Your task to perform on an android device: remove spam from my inbox in the gmail app Image 0: 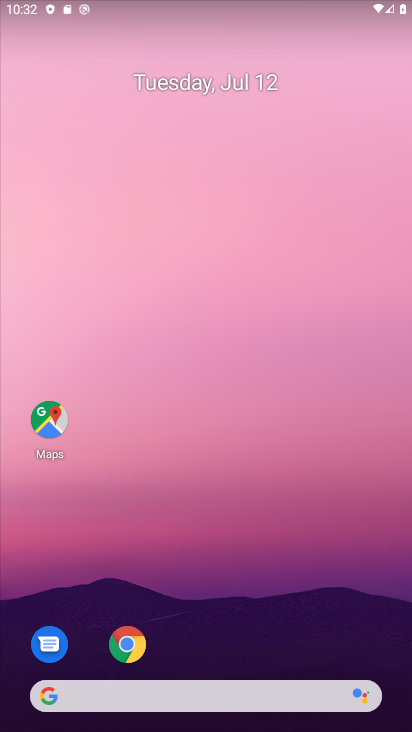
Step 0: press home button
Your task to perform on an android device: remove spam from my inbox in the gmail app Image 1: 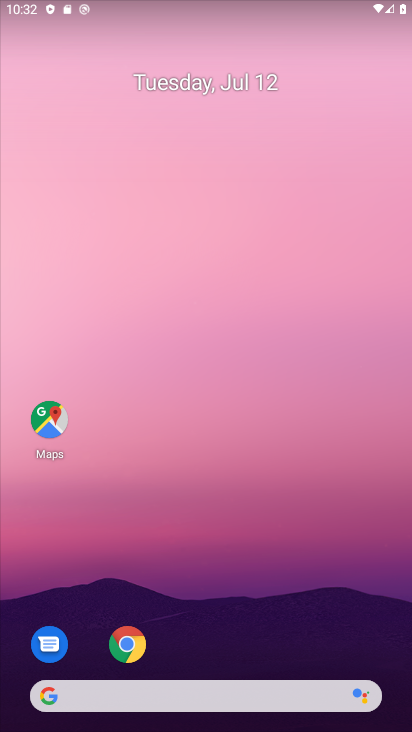
Step 1: drag from (206, 644) to (289, 25)
Your task to perform on an android device: remove spam from my inbox in the gmail app Image 2: 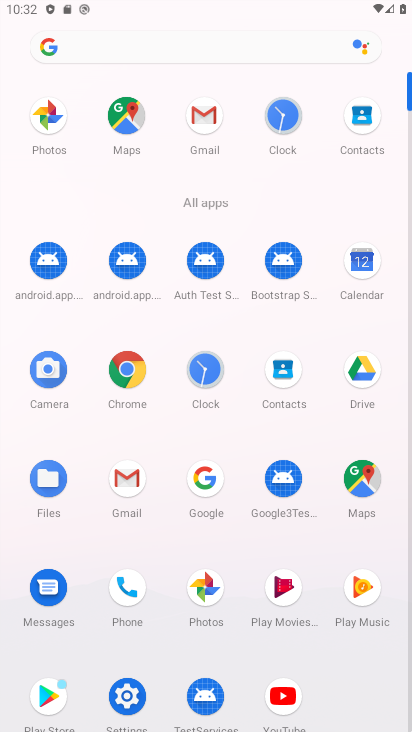
Step 2: click (204, 113)
Your task to perform on an android device: remove spam from my inbox in the gmail app Image 3: 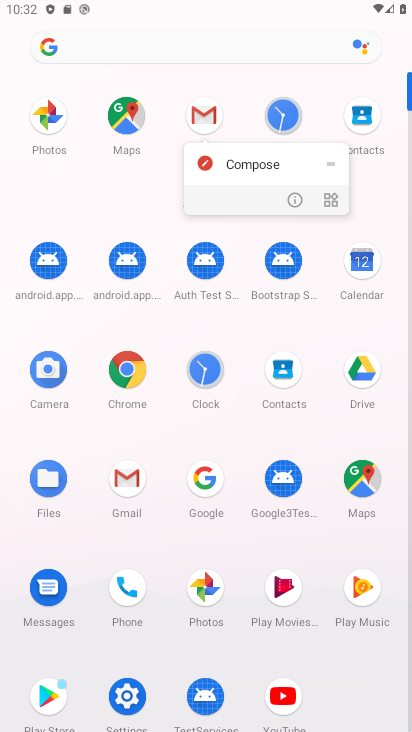
Step 3: click (205, 112)
Your task to perform on an android device: remove spam from my inbox in the gmail app Image 4: 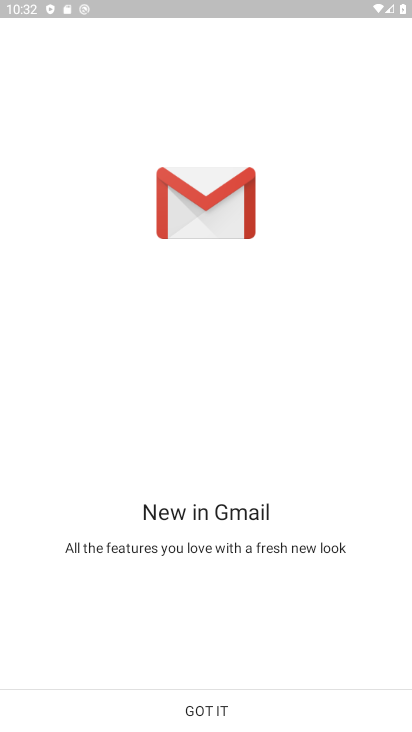
Step 4: click (213, 710)
Your task to perform on an android device: remove spam from my inbox in the gmail app Image 5: 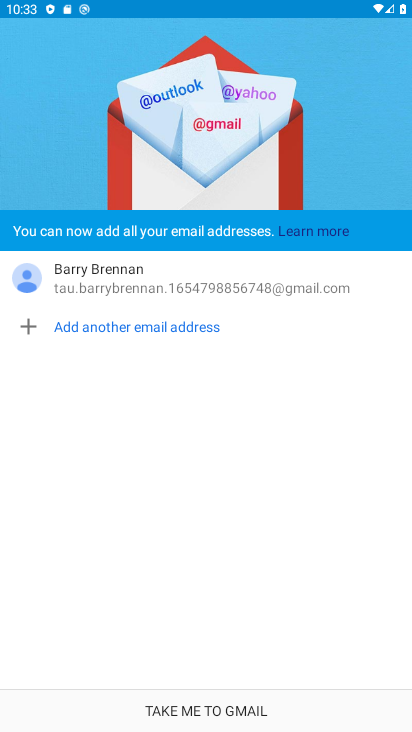
Step 5: click (202, 710)
Your task to perform on an android device: remove spam from my inbox in the gmail app Image 6: 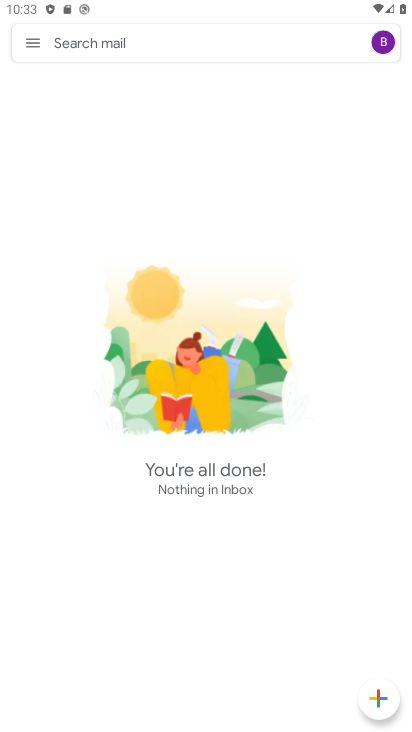
Step 6: click (18, 44)
Your task to perform on an android device: remove spam from my inbox in the gmail app Image 7: 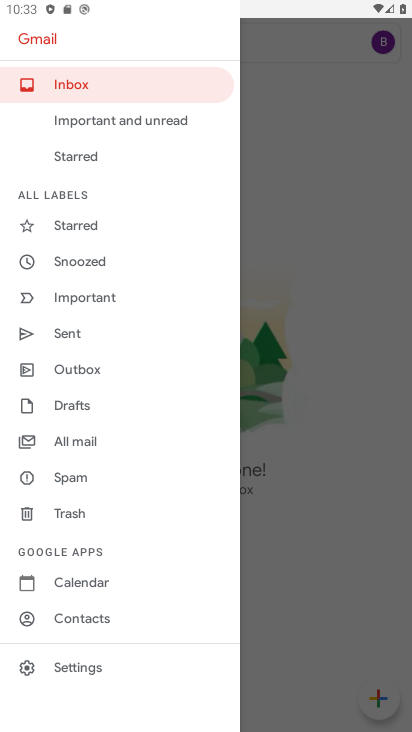
Step 7: click (77, 472)
Your task to perform on an android device: remove spam from my inbox in the gmail app Image 8: 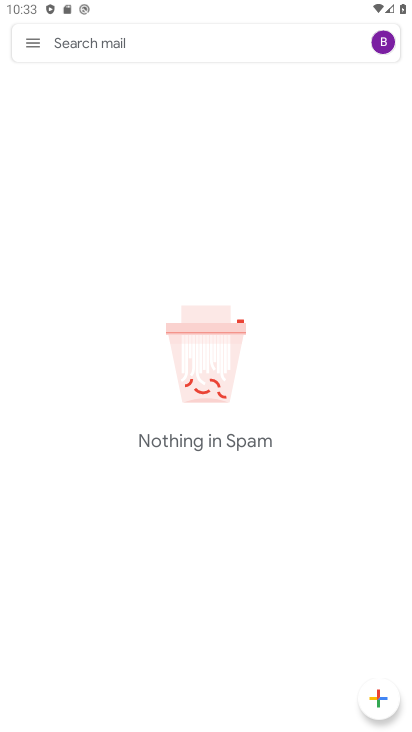
Step 8: task complete